Your task to perform on an android device: Do I have any events this weekend? Image 0: 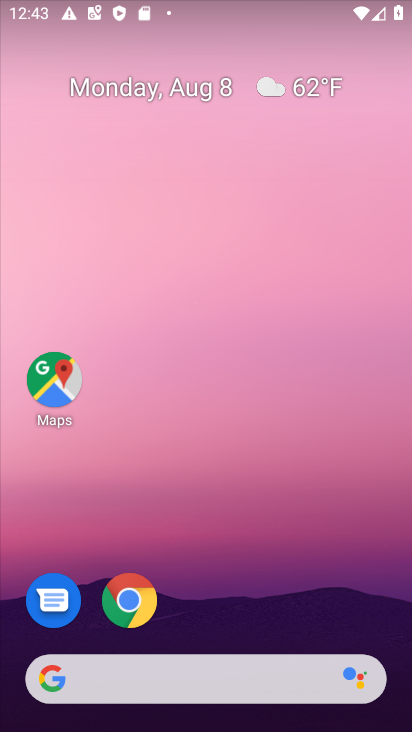
Step 0: drag from (191, 605) to (204, 210)
Your task to perform on an android device: Do I have any events this weekend? Image 1: 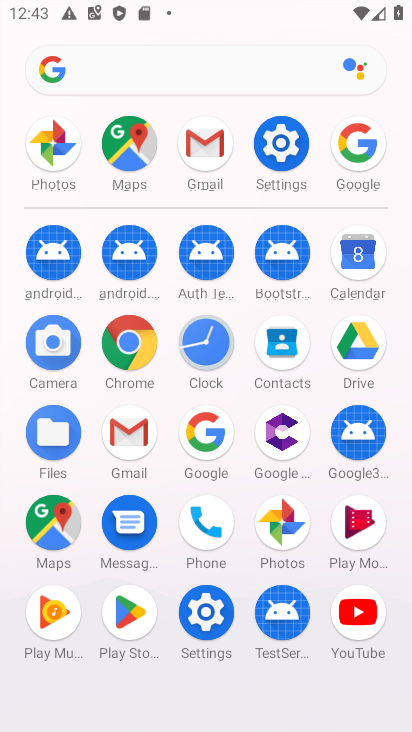
Step 1: click (354, 279)
Your task to perform on an android device: Do I have any events this weekend? Image 2: 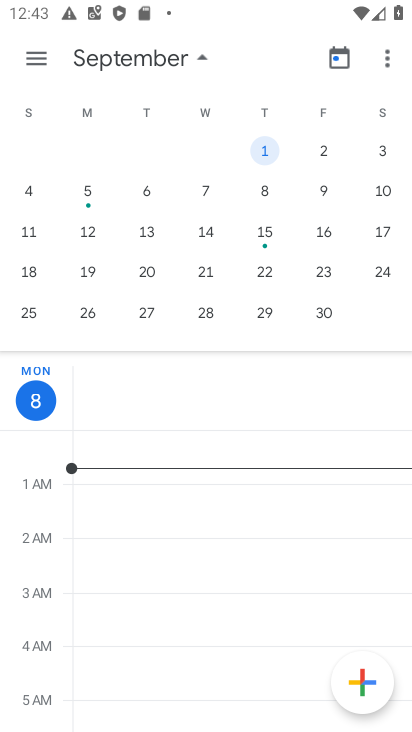
Step 2: drag from (46, 237) to (324, 237)
Your task to perform on an android device: Do I have any events this weekend? Image 3: 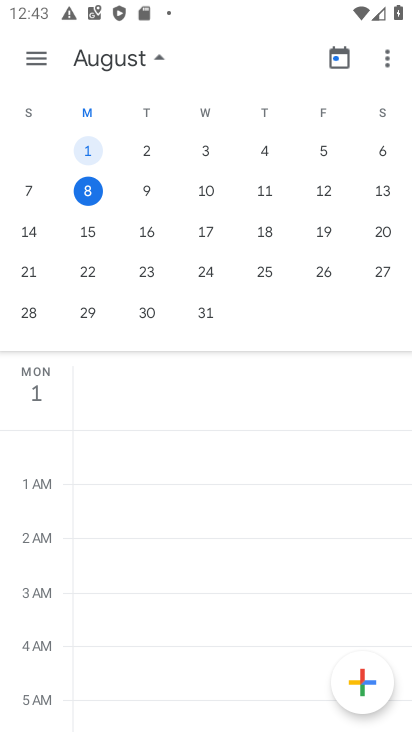
Step 3: click (381, 156)
Your task to perform on an android device: Do I have any events this weekend? Image 4: 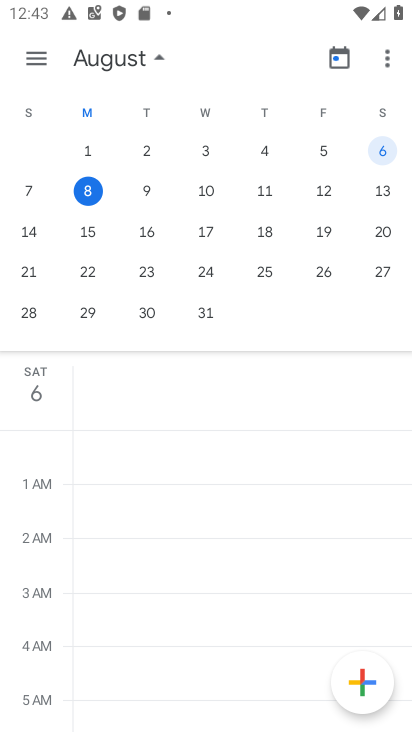
Step 4: click (380, 187)
Your task to perform on an android device: Do I have any events this weekend? Image 5: 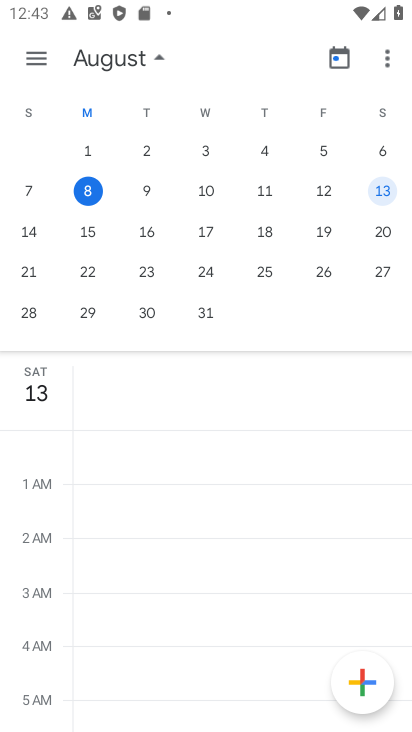
Step 5: click (30, 55)
Your task to perform on an android device: Do I have any events this weekend? Image 6: 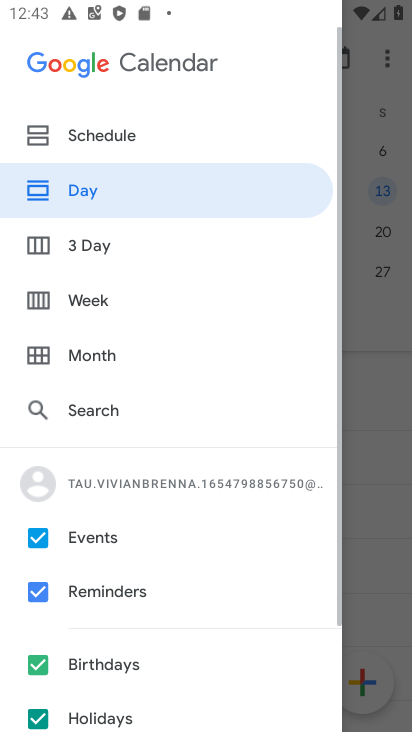
Step 6: click (96, 129)
Your task to perform on an android device: Do I have any events this weekend? Image 7: 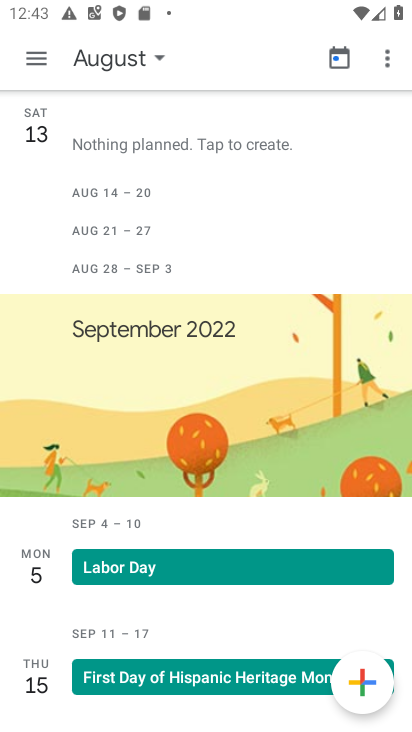
Step 7: task complete